Your task to perform on an android device: Open Google Maps Image 0: 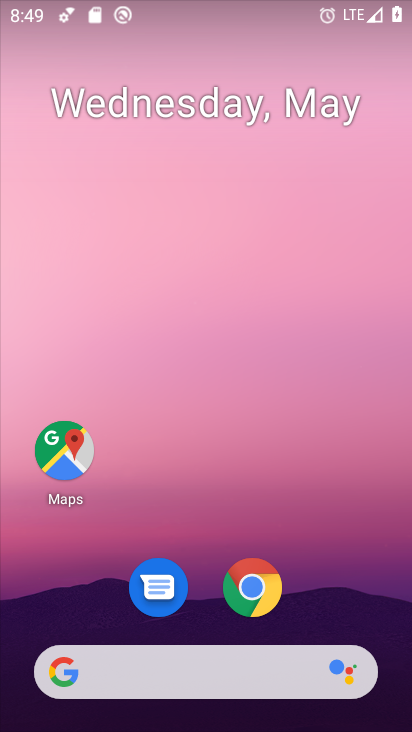
Step 0: click (85, 463)
Your task to perform on an android device: Open Google Maps Image 1: 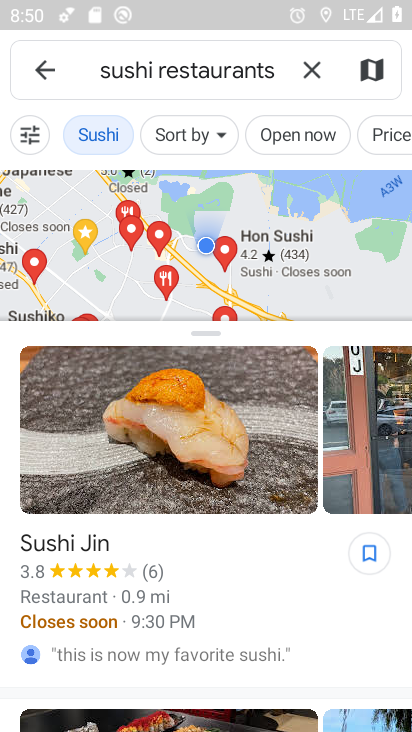
Step 1: click (35, 65)
Your task to perform on an android device: Open Google Maps Image 2: 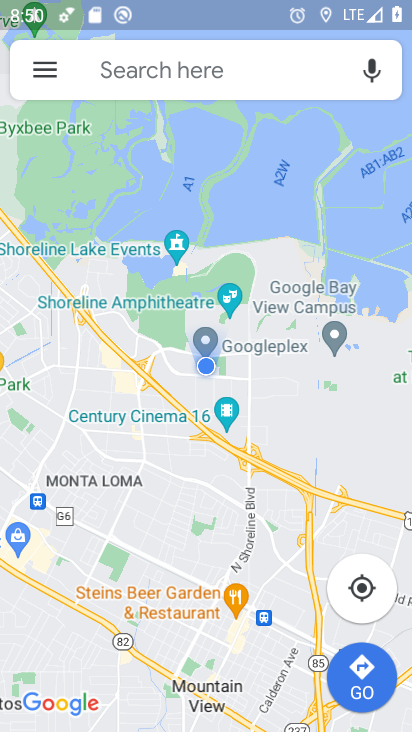
Step 2: task complete